Your task to perform on an android device: delete the emails in spam in the gmail app Image 0: 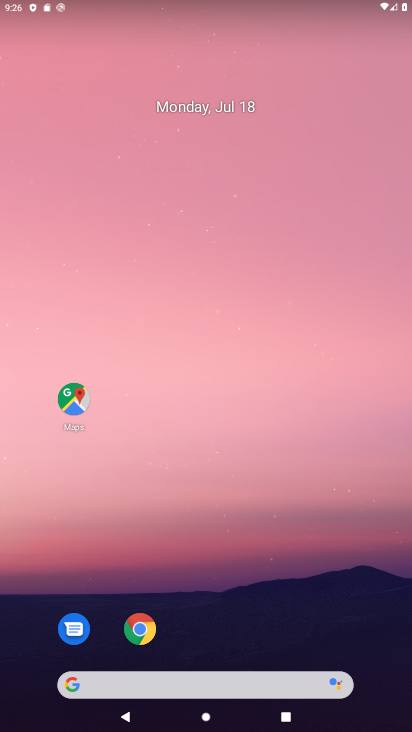
Step 0: drag from (182, 670) to (193, 201)
Your task to perform on an android device: delete the emails in spam in the gmail app Image 1: 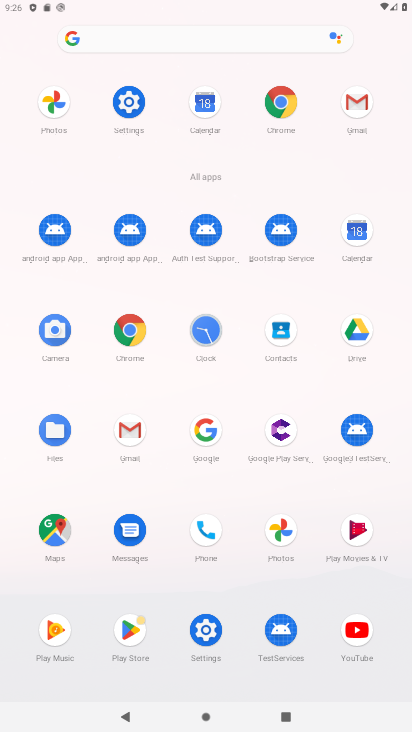
Step 1: click (136, 423)
Your task to perform on an android device: delete the emails in spam in the gmail app Image 2: 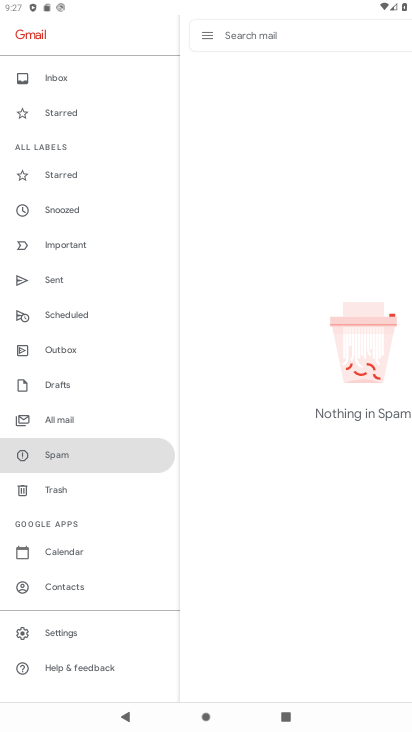
Step 2: click (68, 451)
Your task to perform on an android device: delete the emails in spam in the gmail app Image 3: 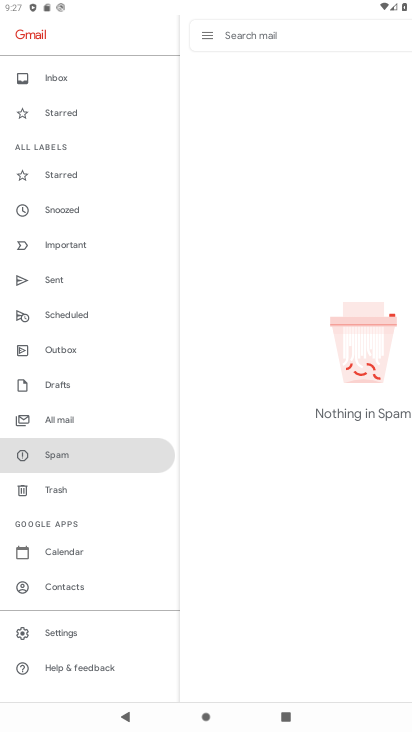
Step 3: task complete